Your task to perform on an android device: open app "HBO Max: Stream TV & Movies" (install if not already installed) Image 0: 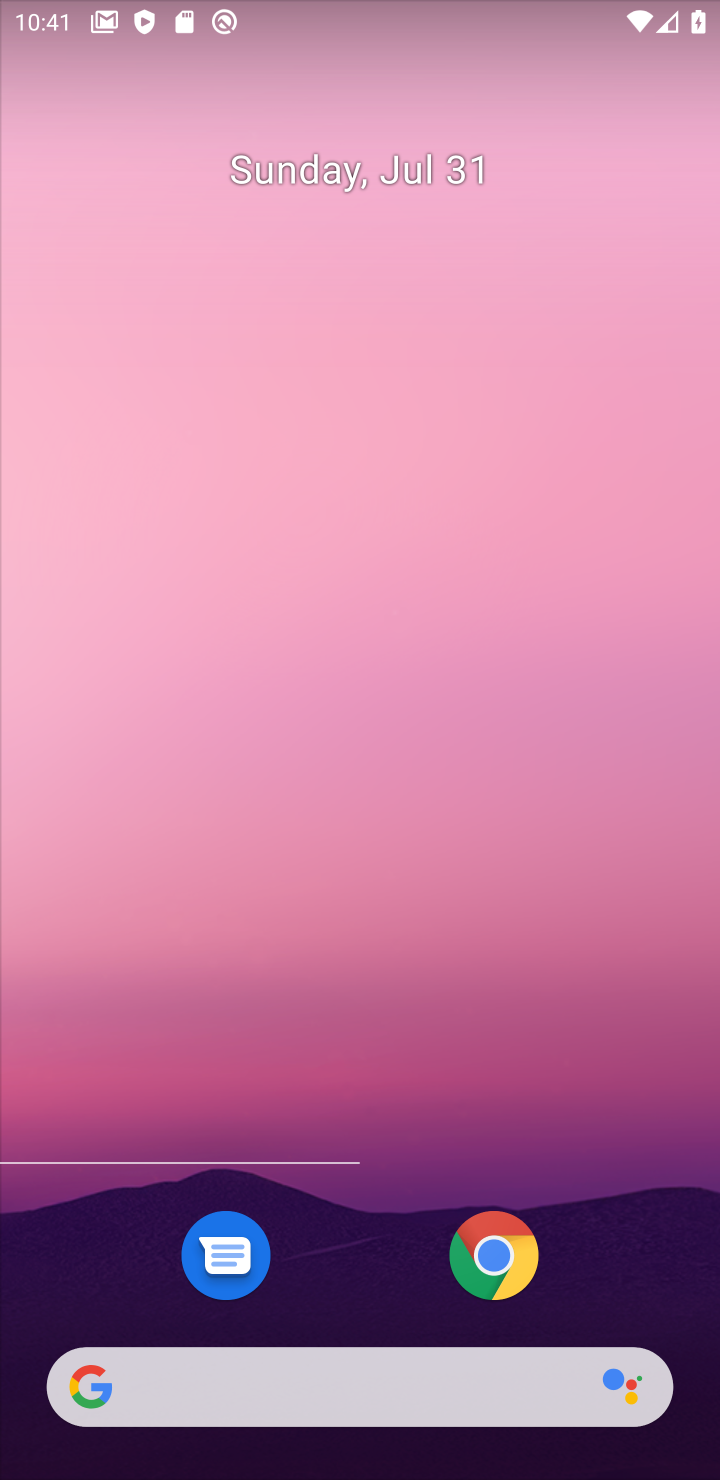
Step 0: press back button
Your task to perform on an android device: open app "HBO Max: Stream TV & Movies" (install if not already installed) Image 1: 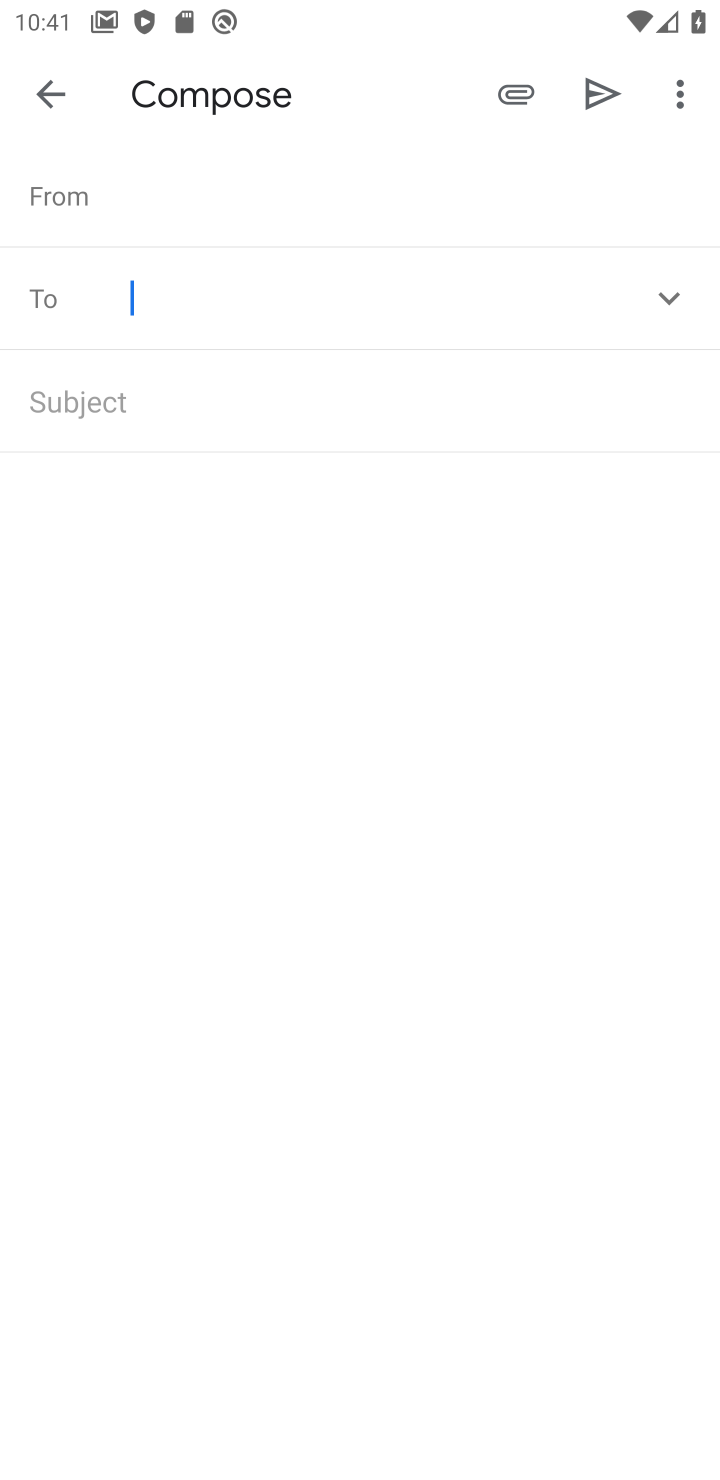
Step 1: press home button
Your task to perform on an android device: open app "HBO Max: Stream TV & Movies" (install if not already installed) Image 2: 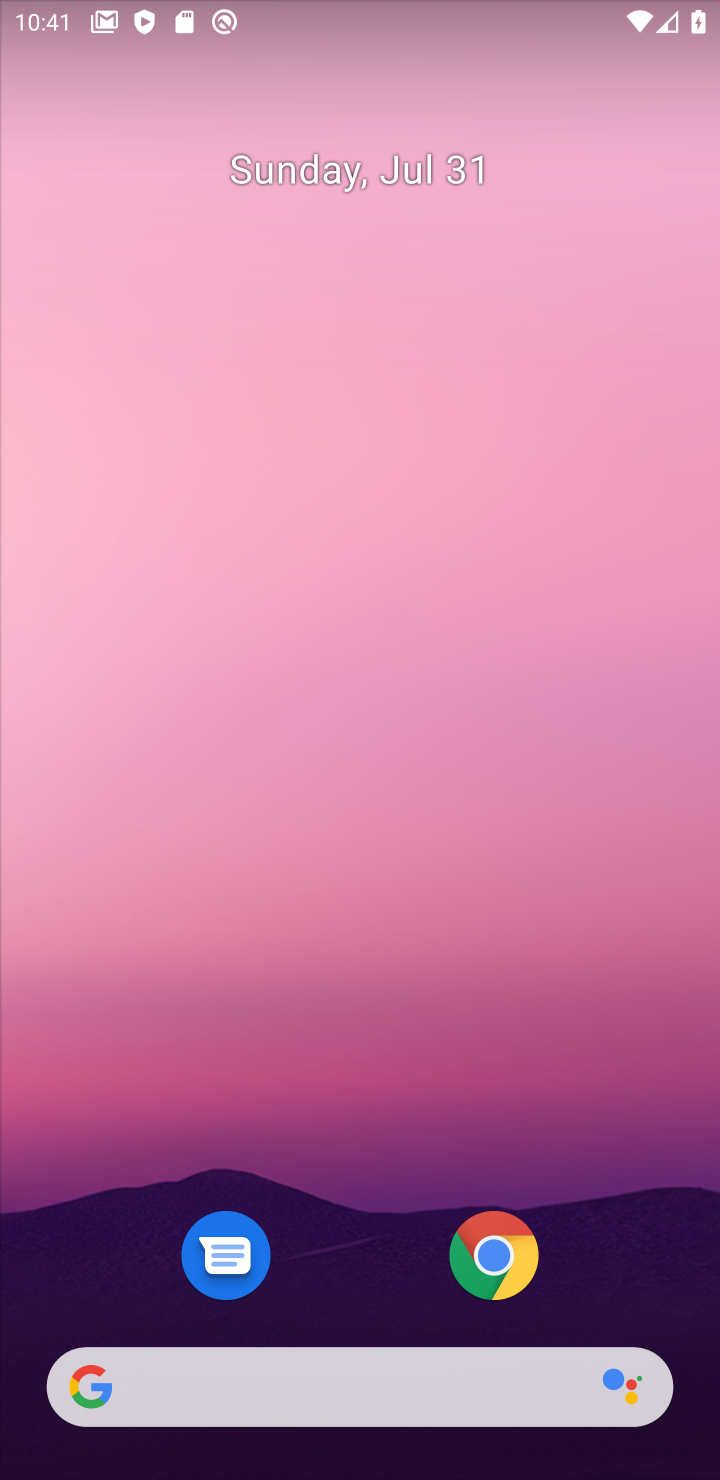
Step 2: drag from (363, 1316) to (216, 103)
Your task to perform on an android device: open app "HBO Max: Stream TV & Movies" (install if not already installed) Image 3: 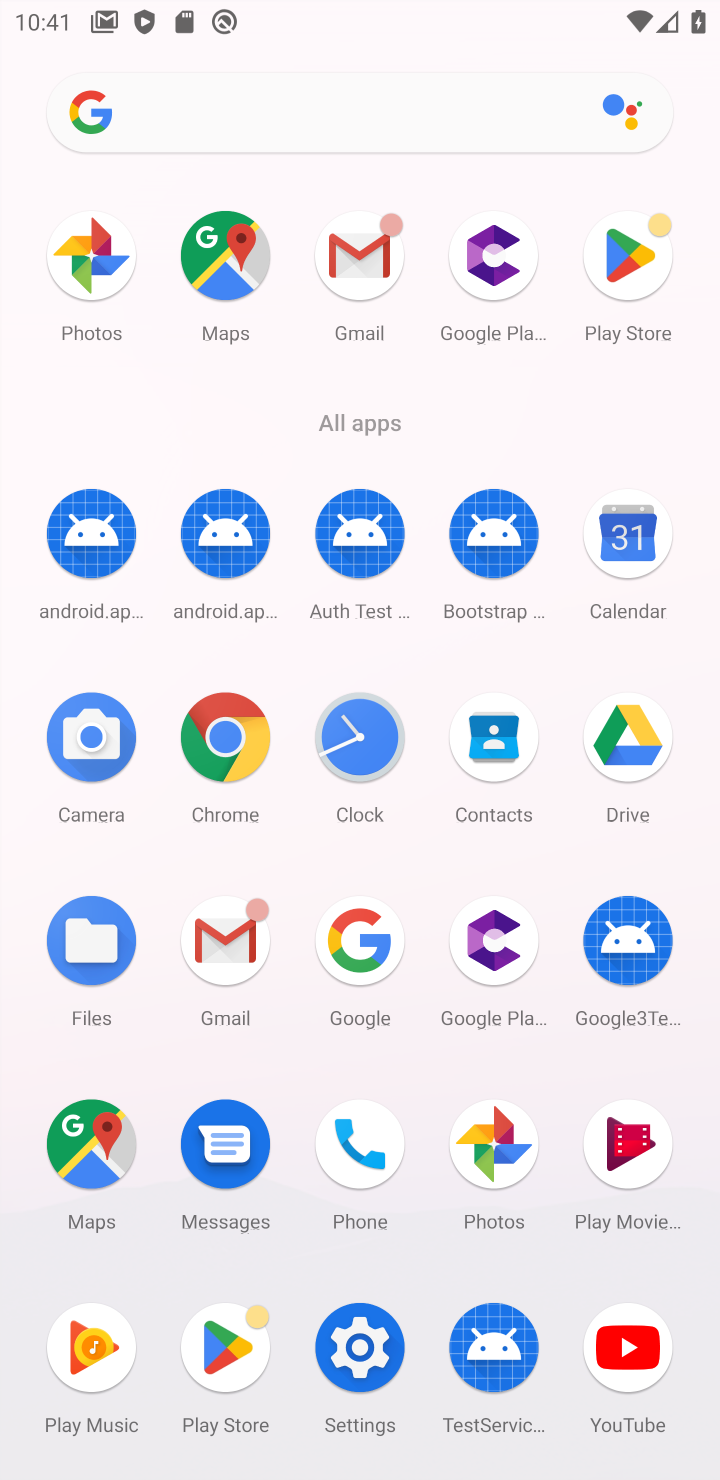
Step 3: click (214, 1378)
Your task to perform on an android device: open app "HBO Max: Stream TV & Movies" (install if not already installed) Image 4: 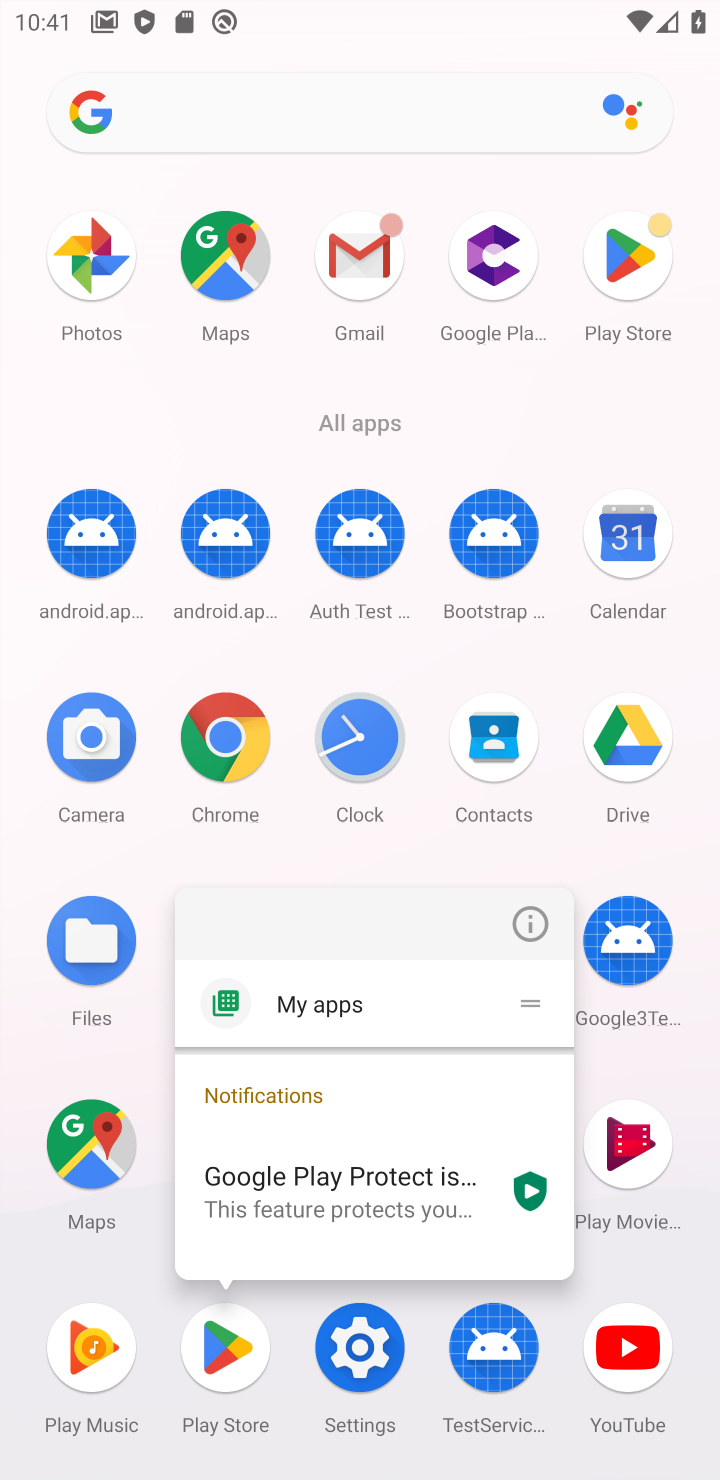
Step 4: click (246, 1341)
Your task to perform on an android device: open app "HBO Max: Stream TV & Movies" (install if not already installed) Image 5: 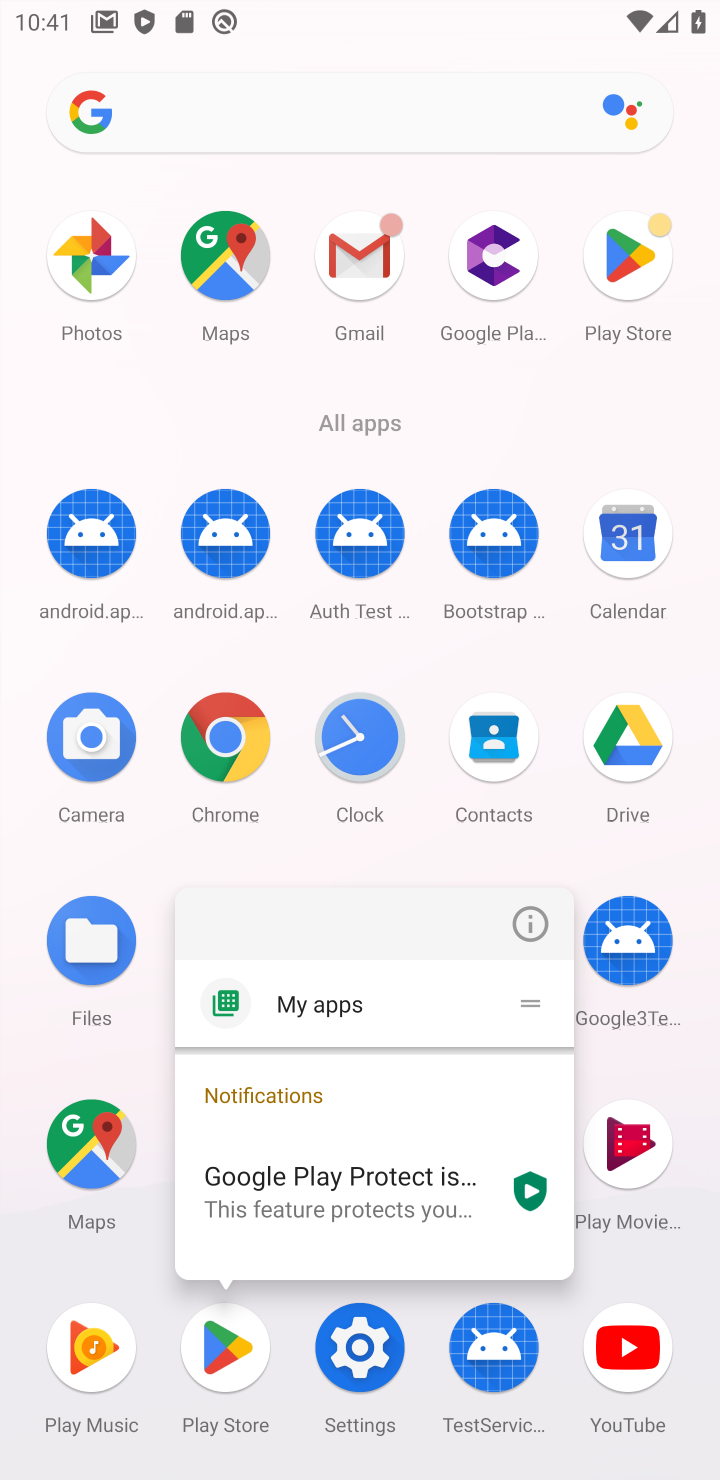
Step 5: click (248, 1355)
Your task to perform on an android device: open app "HBO Max: Stream TV & Movies" (install if not already installed) Image 6: 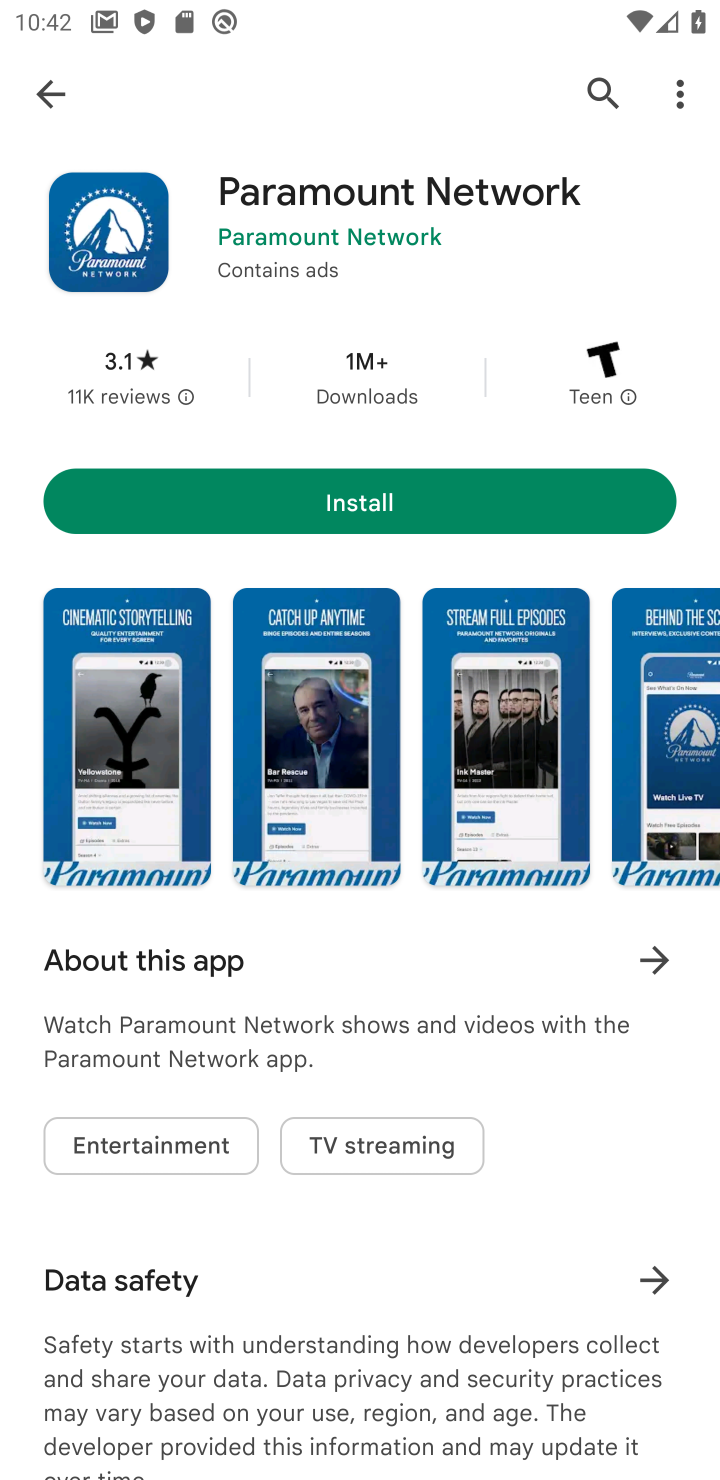
Step 6: click (36, 85)
Your task to perform on an android device: open app "HBO Max: Stream TV & Movies" (install if not already installed) Image 7: 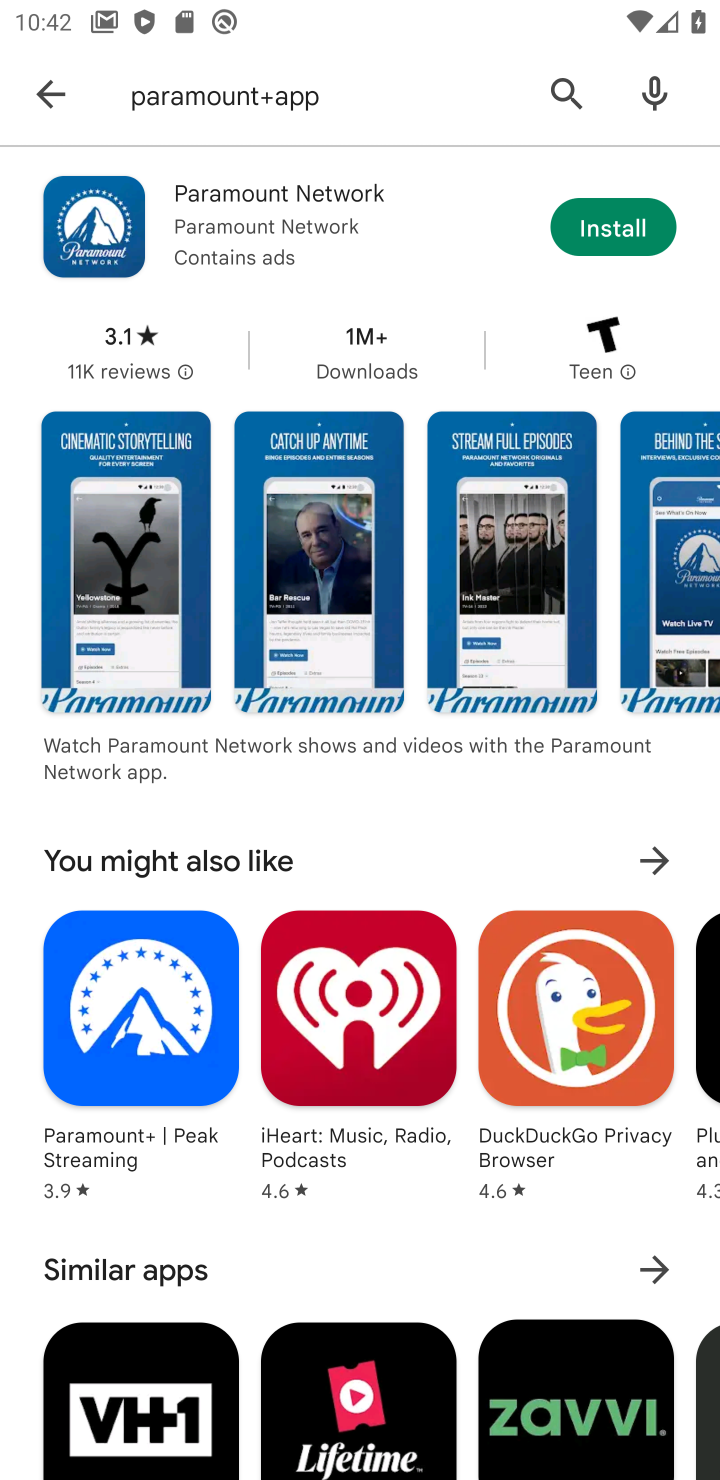
Step 7: click (36, 85)
Your task to perform on an android device: open app "HBO Max: Stream TV & Movies" (install if not already installed) Image 8: 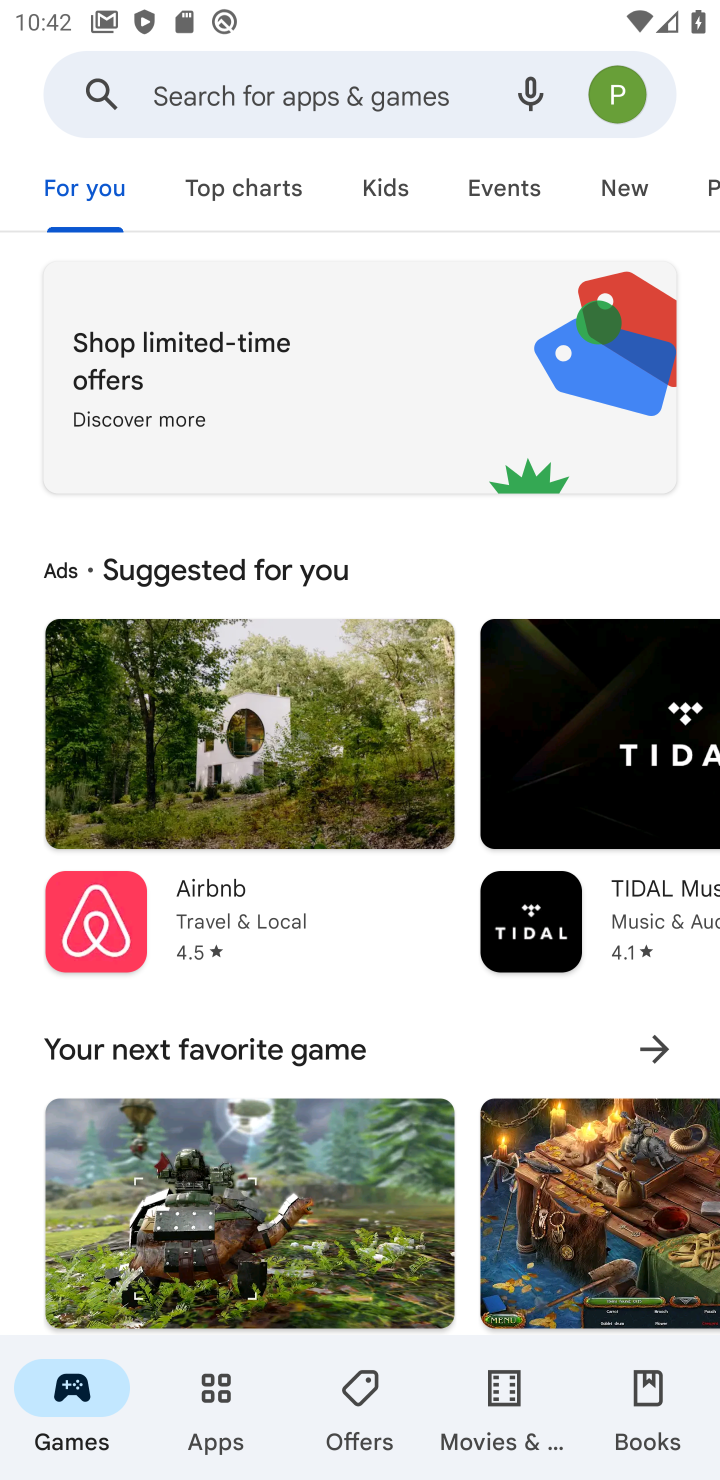
Step 8: type "HBO Max: Stream TV & Movies"
Your task to perform on an android device: open app "HBO Max: Stream TV & Movies" (install if not already installed) Image 9: 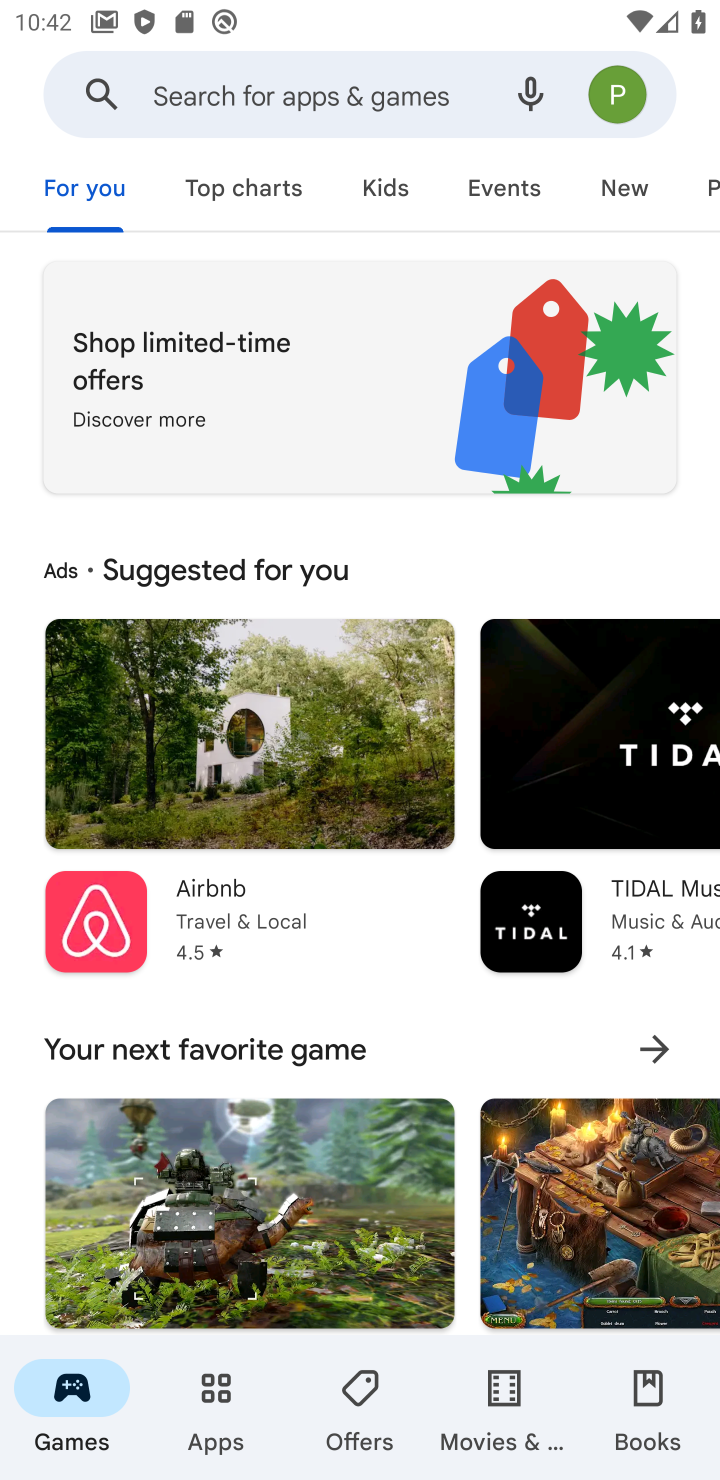
Step 9: click (290, 110)
Your task to perform on an android device: open app "HBO Max: Stream TV & Movies" (install if not already installed) Image 10: 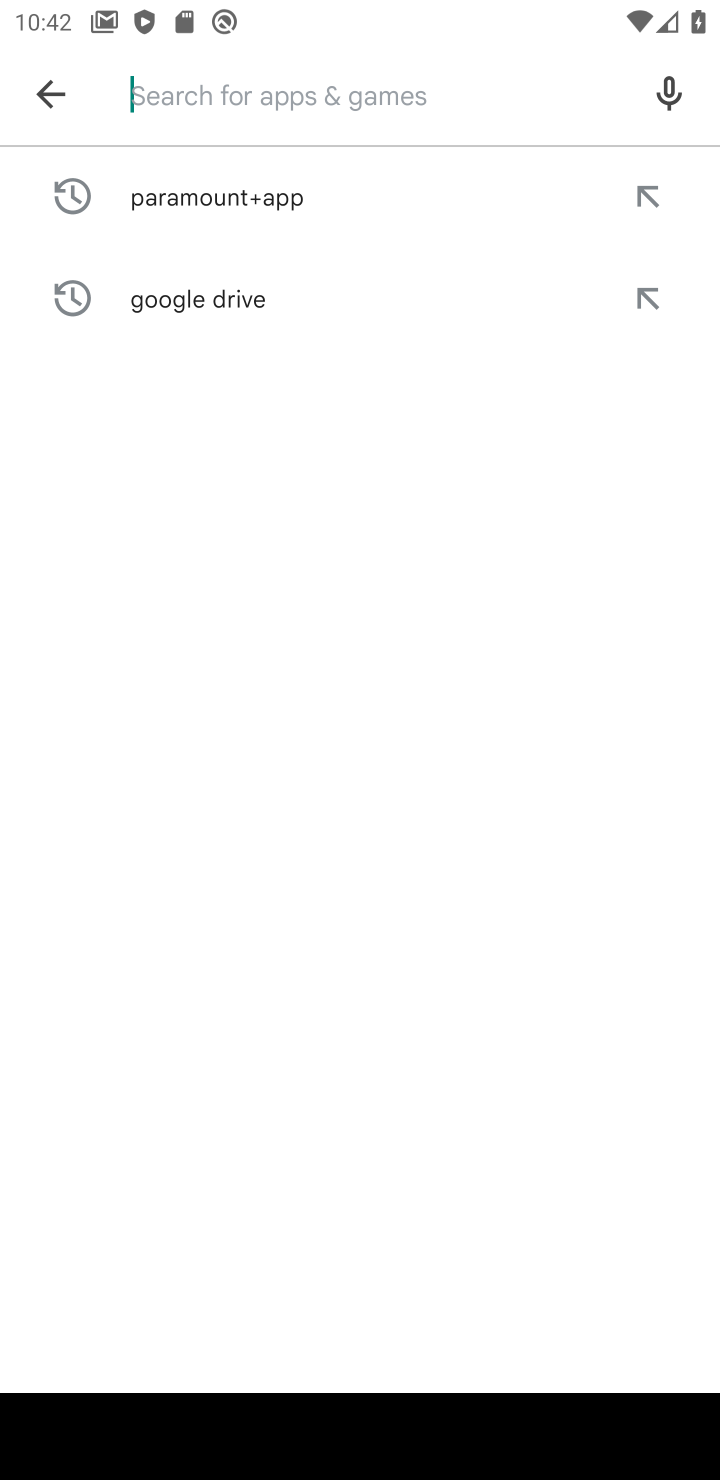
Step 10: type "HBO Max: Stream TV & Movies"
Your task to perform on an android device: open app "HBO Max: Stream TV & Movies" (install if not already installed) Image 11: 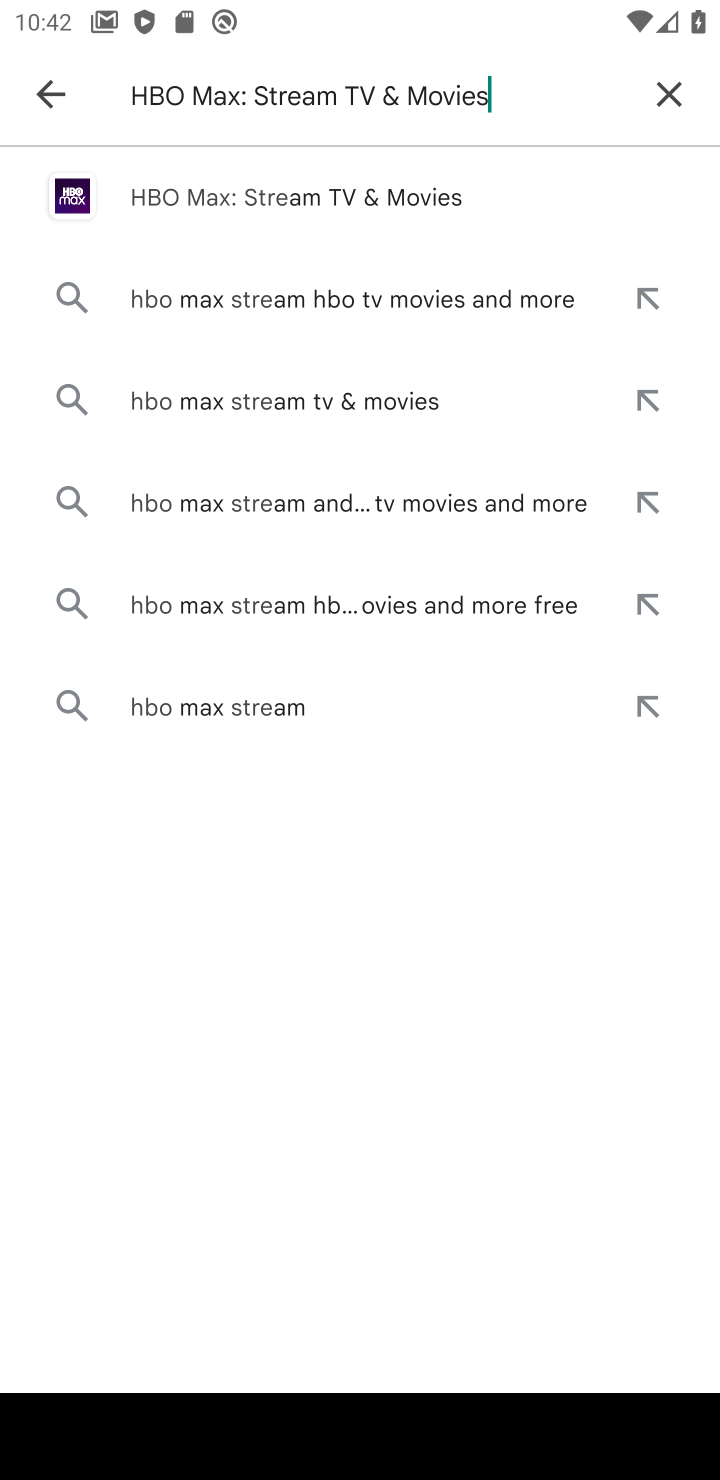
Step 11: type ""
Your task to perform on an android device: open app "HBO Max: Stream TV & Movies" (install if not already installed) Image 12: 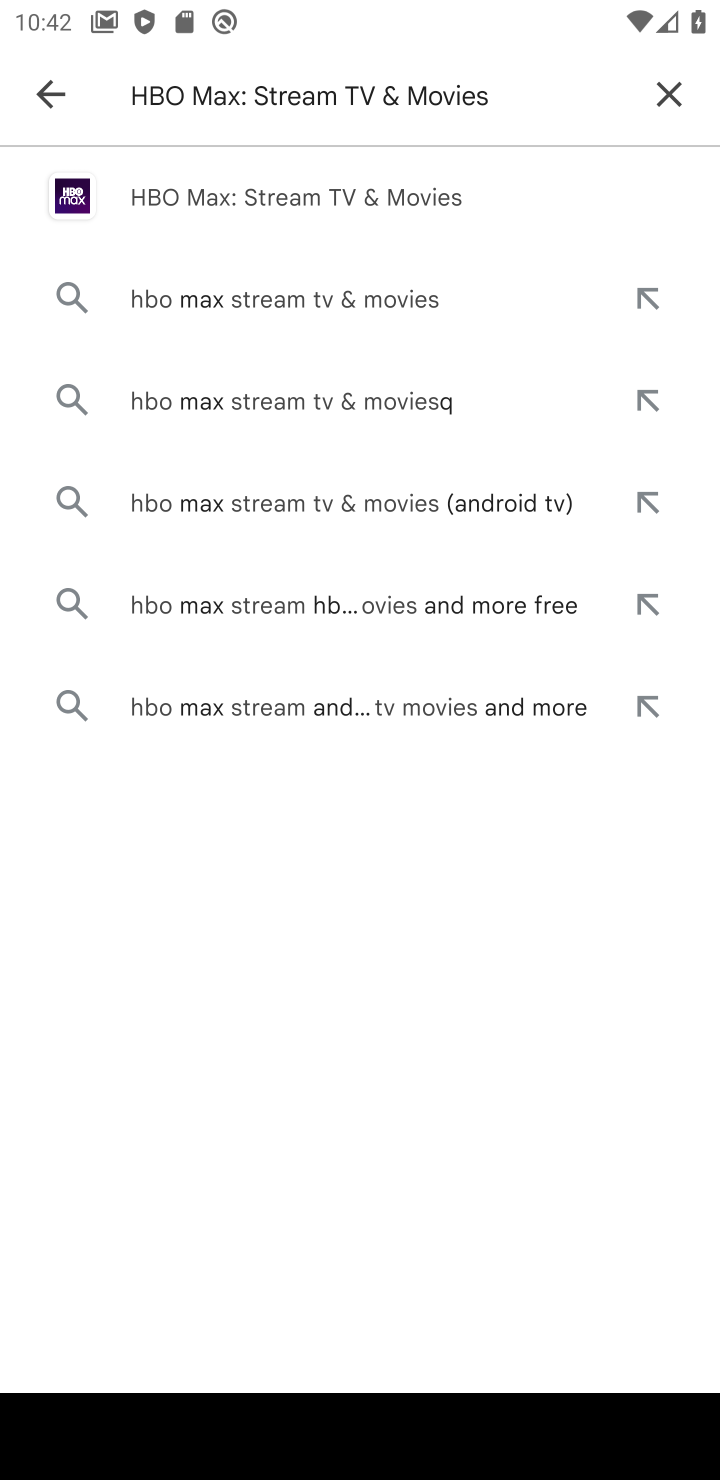
Step 12: click (279, 194)
Your task to perform on an android device: open app "HBO Max: Stream TV & Movies" (install if not already installed) Image 13: 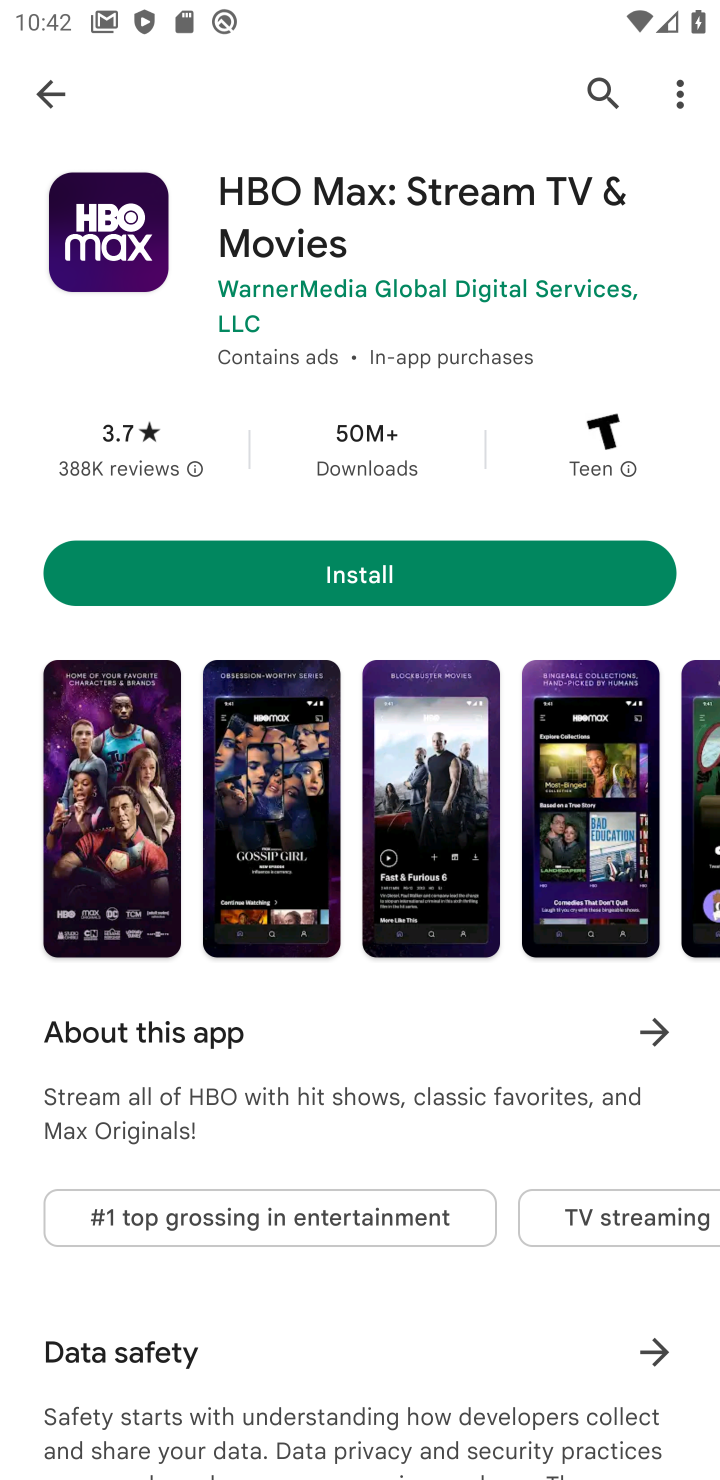
Step 13: task complete